Your task to perform on an android device: toggle airplane mode Image 0: 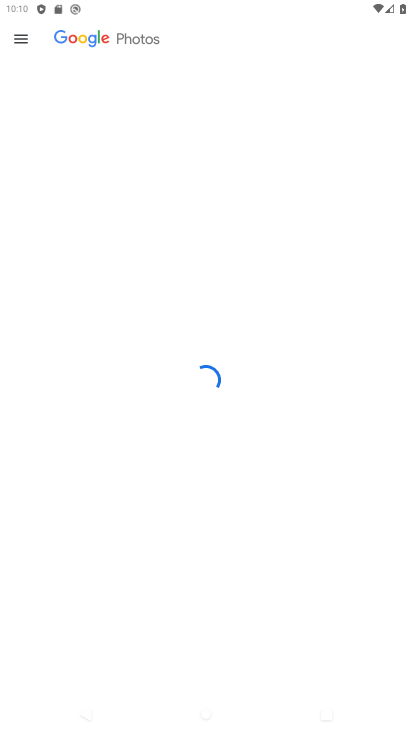
Step 0: press home button
Your task to perform on an android device: toggle airplane mode Image 1: 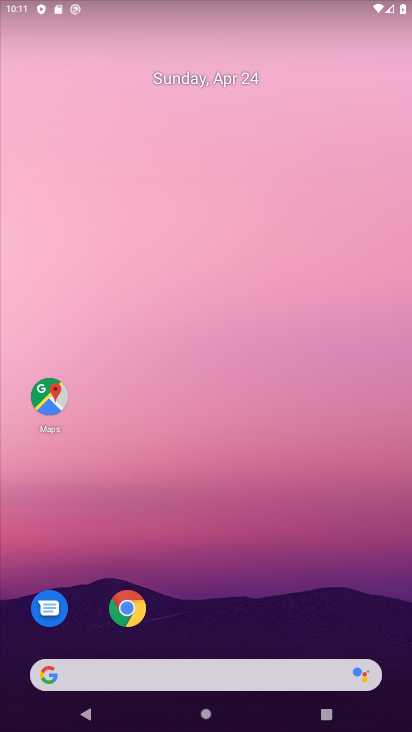
Step 1: drag from (234, 696) to (215, 153)
Your task to perform on an android device: toggle airplane mode Image 2: 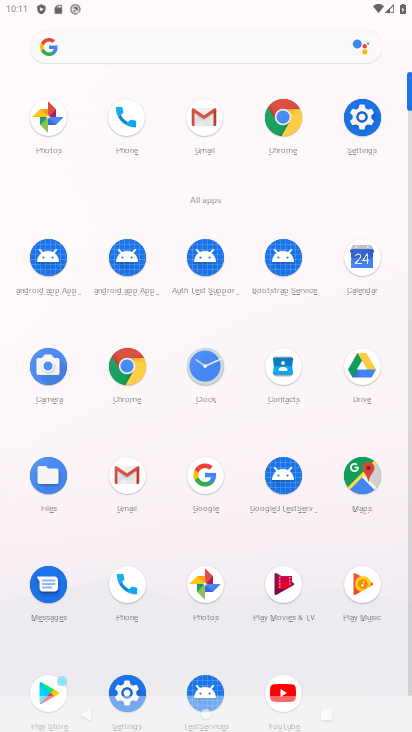
Step 2: click (359, 122)
Your task to perform on an android device: toggle airplane mode Image 3: 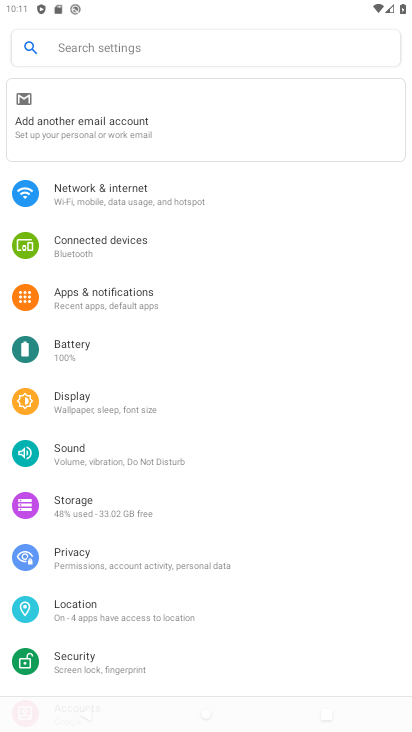
Step 3: click (111, 208)
Your task to perform on an android device: toggle airplane mode Image 4: 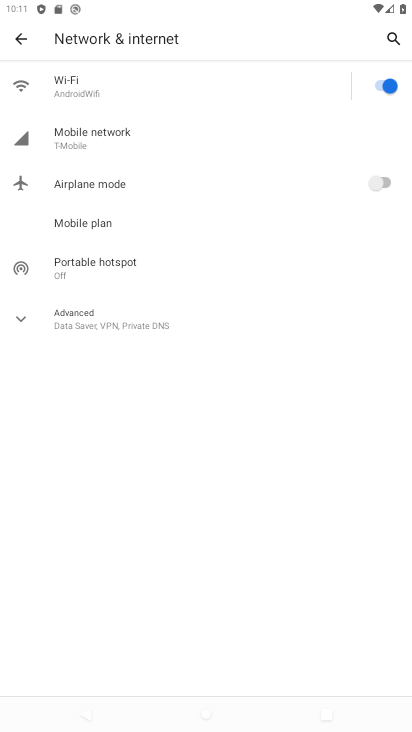
Step 4: click (107, 208)
Your task to perform on an android device: toggle airplane mode Image 5: 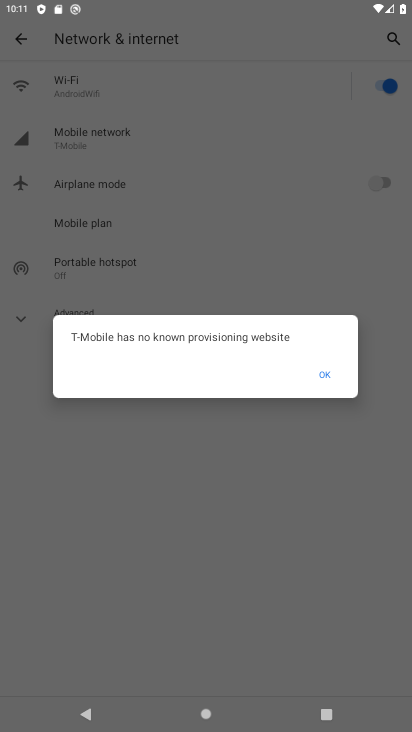
Step 5: task complete